Your task to perform on an android device: Find coffee shops on Maps Image 0: 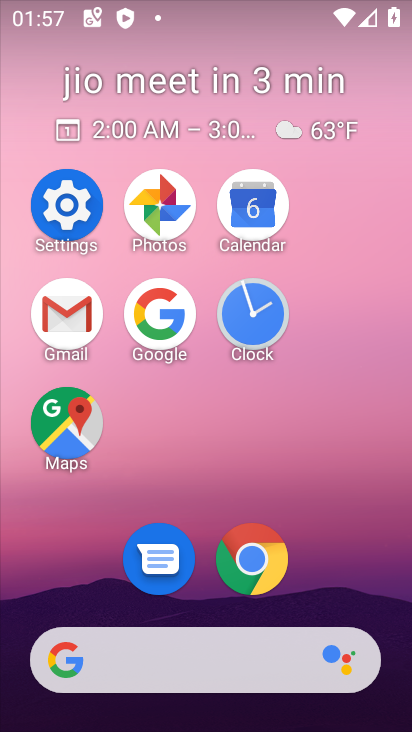
Step 0: click (102, 410)
Your task to perform on an android device: Find coffee shops on Maps Image 1: 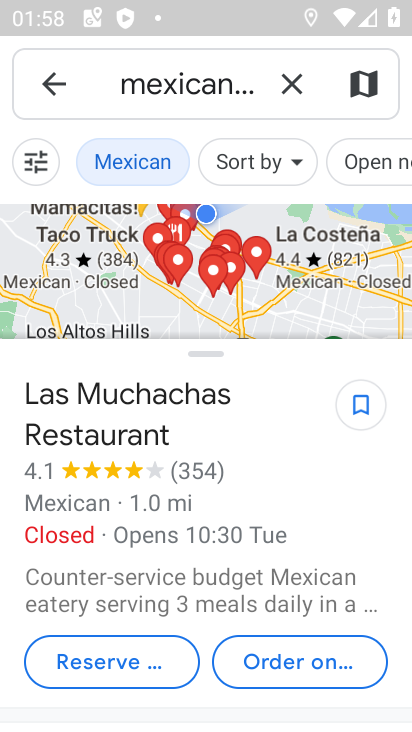
Step 1: click (294, 87)
Your task to perform on an android device: Find coffee shops on Maps Image 2: 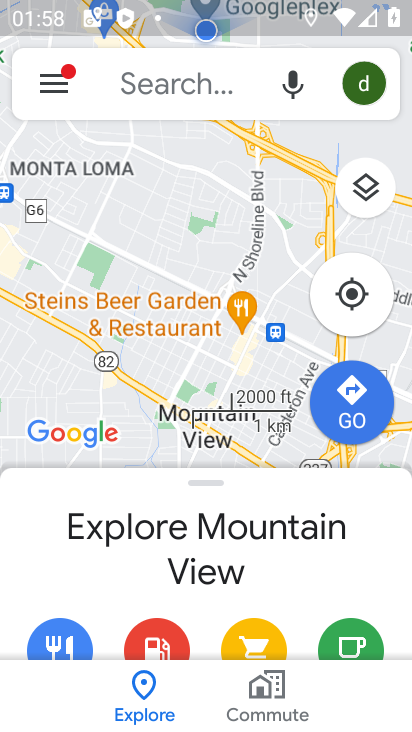
Step 2: click (153, 87)
Your task to perform on an android device: Find coffee shops on Maps Image 3: 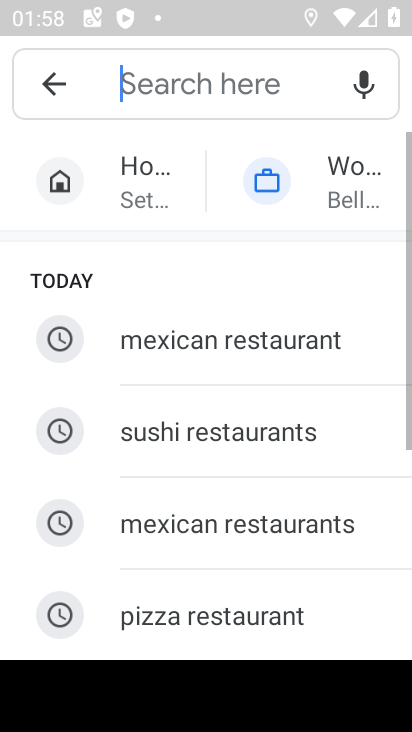
Step 3: drag from (251, 598) to (251, 172)
Your task to perform on an android device: Find coffee shops on Maps Image 4: 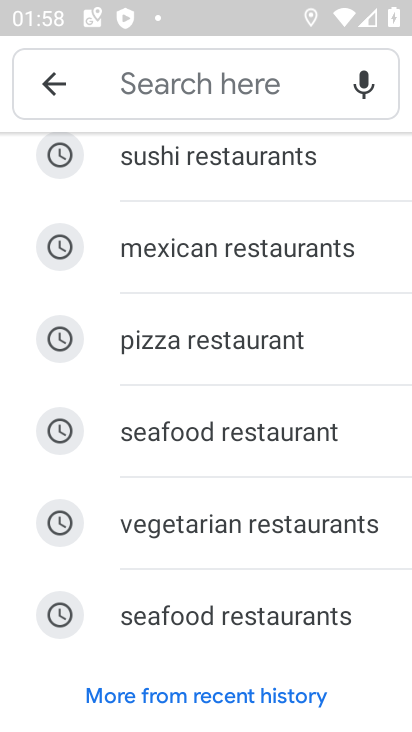
Step 4: click (192, 80)
Your task to perform on an android device: Find coffee shops on Maps Image 5: 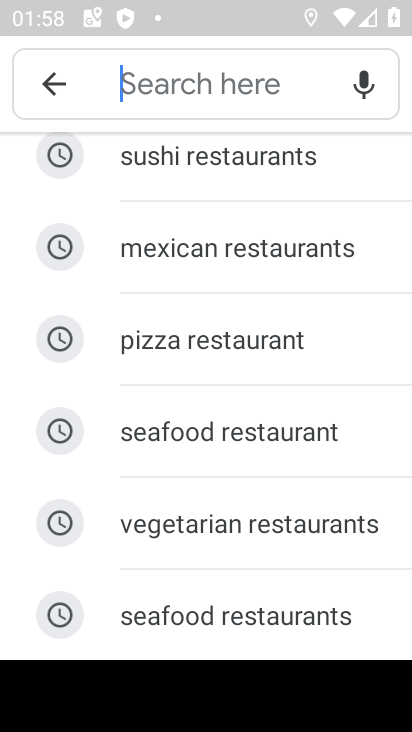
Step 5: type "coffee shops"
Your task to perform on an android device: Find coffee shops on Maps Image 6: 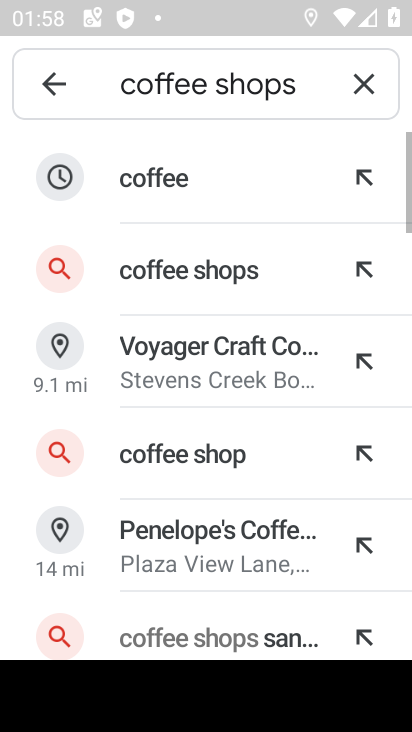
Step 6: task complete